Your task to perform on an android device: change the clock display to analog Image 0: 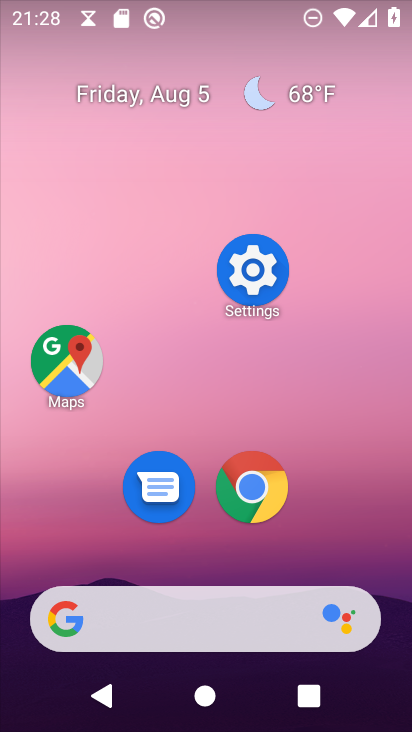
Step 0: drag from (182, 613) to (296, 140)
Your task to perform on an android device: change the clock display to analog Image 1: 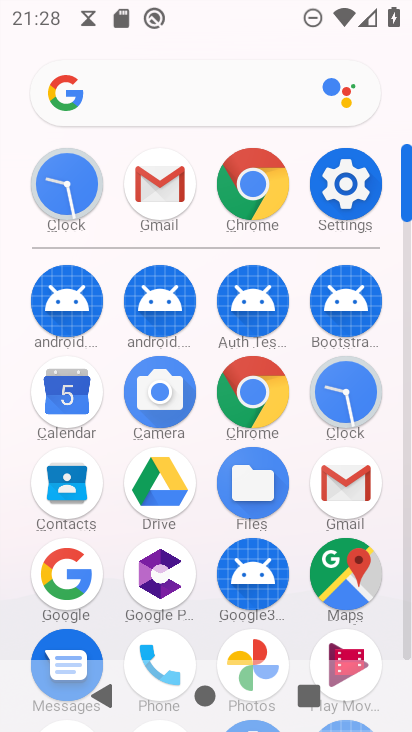
Step 1: click (343, 396)
Your task to perform on an android device: change the clock display to analog Image 2: 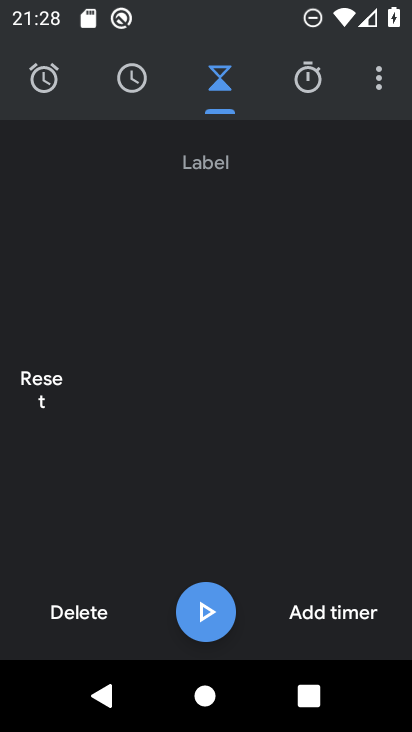
Step 2: click (378, 79)
Your task to perform on an android device: change the clock display to analog Image 3: 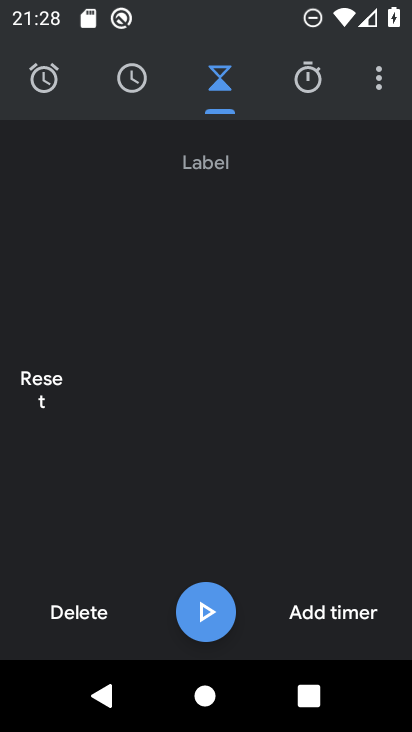
Step 3: click (378, 81)
Your task to perform on an android device: change the clock display to analog Image 4: 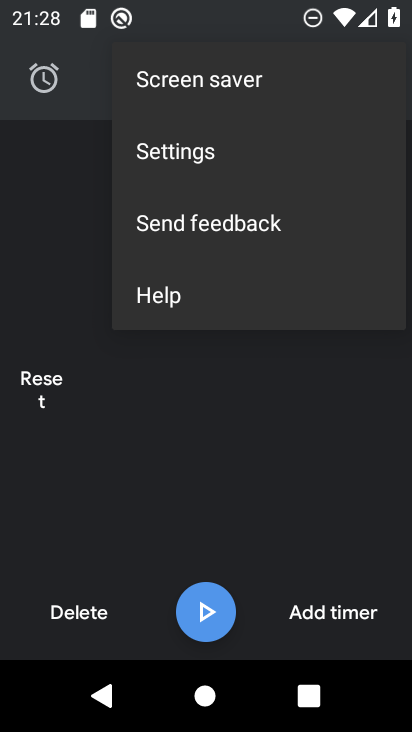
Step 4: click (198, 148)
Your task to perform on an android device: change the clock display to analog Image 5: 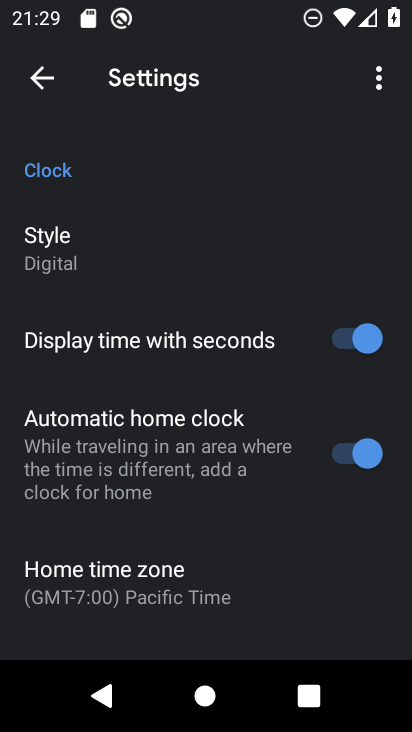
Step 5: click (58, 264)
Your task to perform on an android device: change the clock display to analog Image 6: 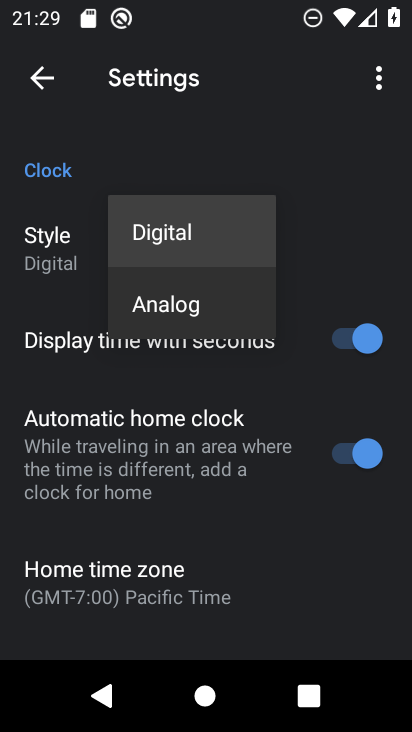
Step 6: click (176, 296)
Your task to perform on an android device: change the clock display to analog Image 7: 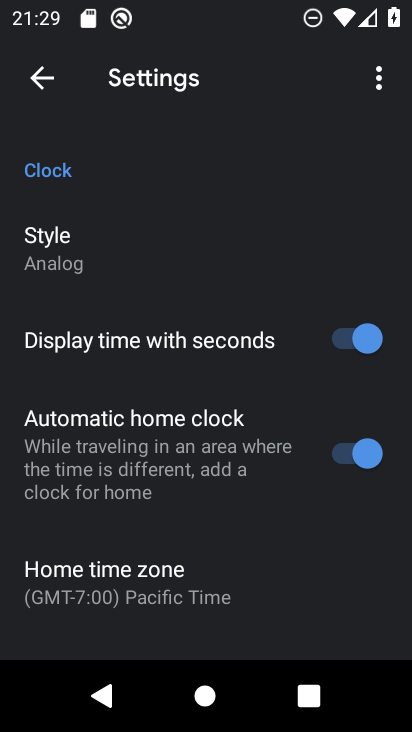
Step 7: task complete